Your task to perform on an android device: Go to Maps Image 0: 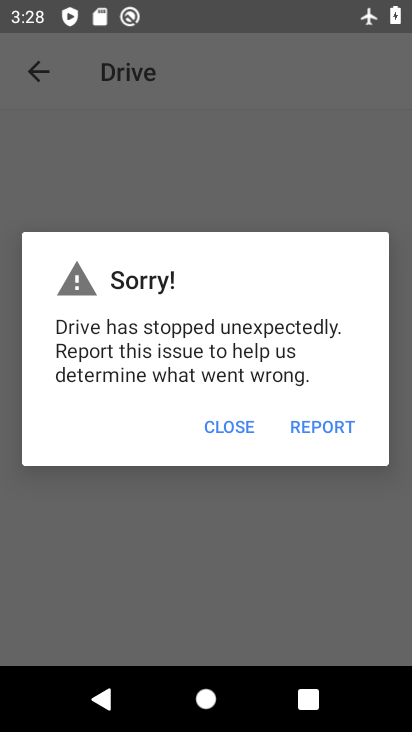
Step 0: press home button
Your task to perform on an android device: Go to Maps Image 1: 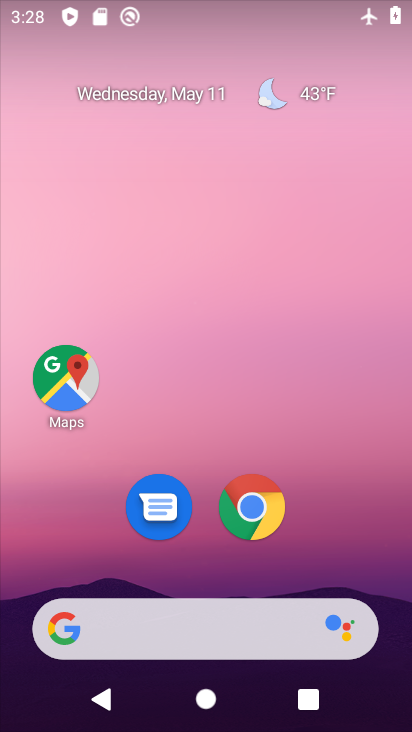
Step 1: click (64, 376)
Your task to perform on an android device: Go to Maps Image 2: 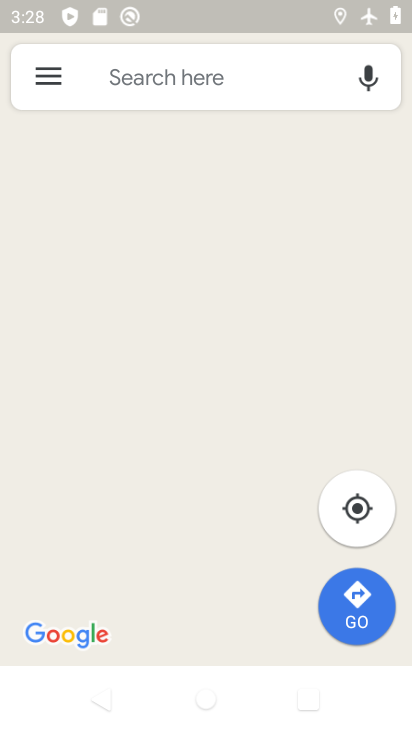
Step 2: task complete